Your task to perform on an android device: Open calendar and show me the second week of next month Image 0: 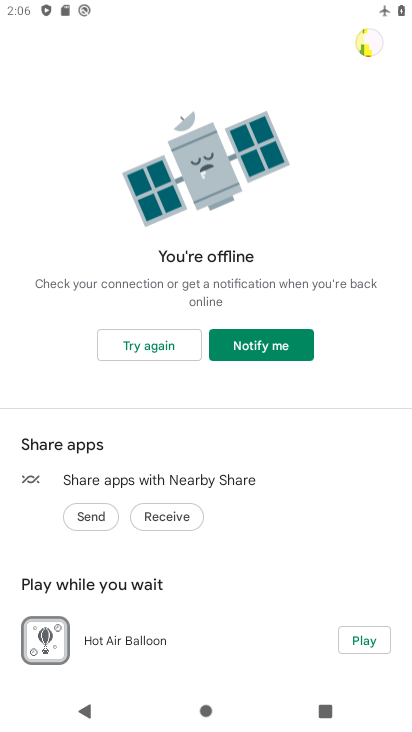
Step 0: press home button
Your task to perform on an android device: Open calendar and show me the second week of next month Image 1: 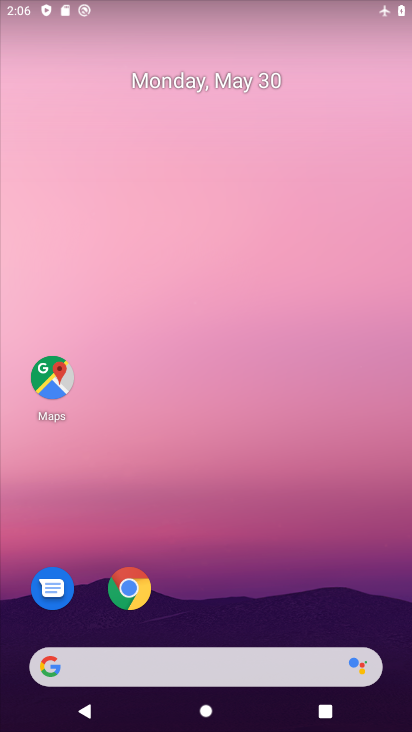
Step 1: drag from (238, 615) to (273, 161)
Your task to perform on an android device: Open calendar and show me the second week of next month Image 2: 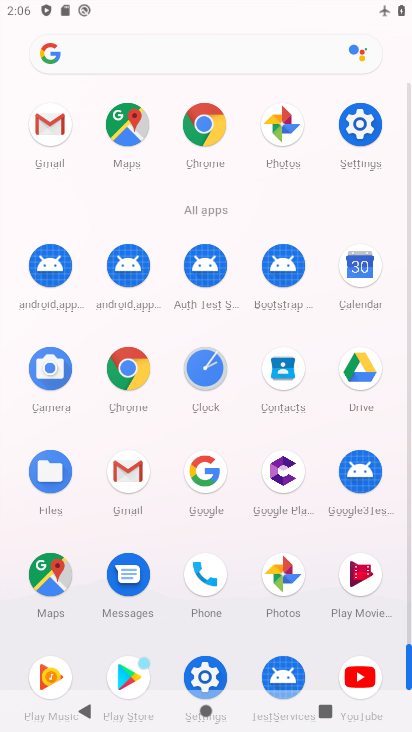
Step 2: click (351, 267)
Your task to perform on an android device: Open calendar and show me the second week of next month Image 3: 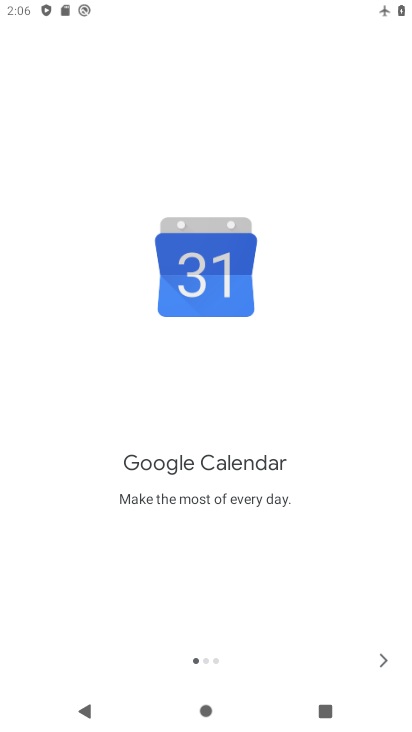
Step 3: click (362, 651)
Your task to perform on an android device: Open calendar and show me the second week of next month Image 4: 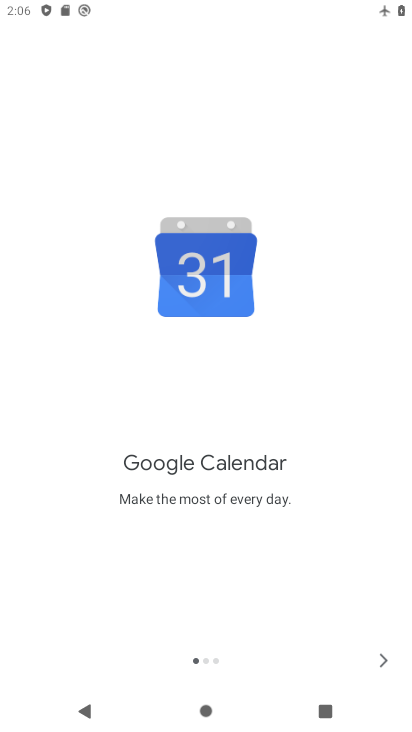
Step 4: click (381, 657)
Your task to perform on an android device: Open calendar and show me the second week of next month Image 5: 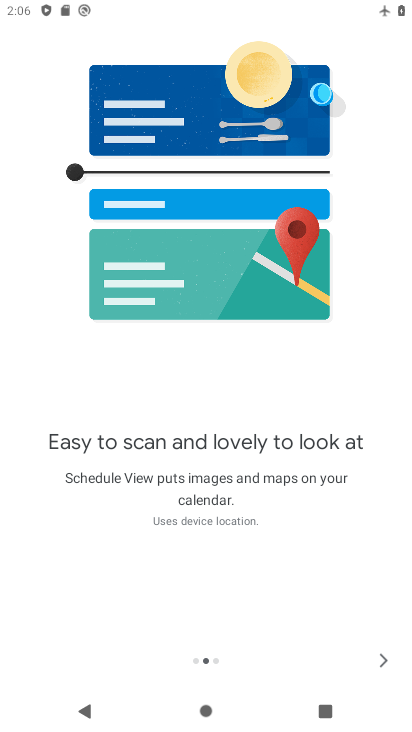
Step 5: click (381, 657)
Your task to perform on an android device: Open calendar and show me the second week of next month Image 6: 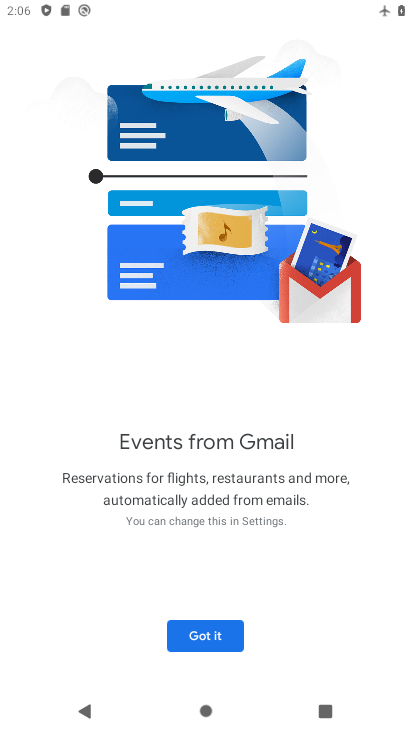
Step 6: click (382, 657)
Your task to perform on an android device: Open calendar and show me the second week of next month Image 7: 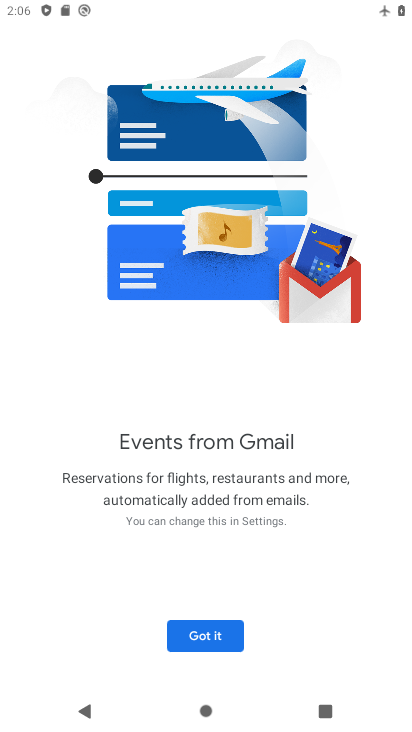
Step 7: click (232, 639)
Your task to perform on an android device: Open calendar and show me the second week of next month Image 8: 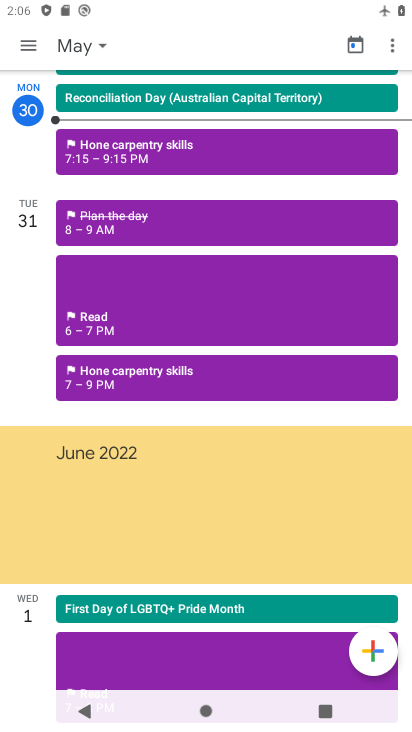
Step 8: click (30, 47)
Your task to perform on an android device: Open calendar and show me the second week of next month Image 9: 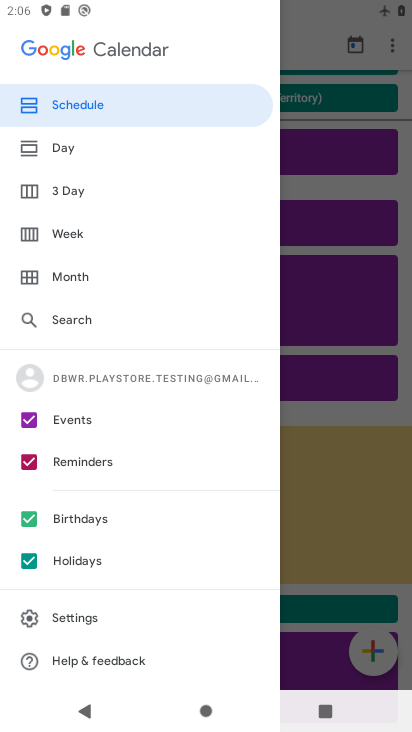
Step 9: click (90, 275)
Your task to perform on an android device: Open calendar and show me the second week of next month Image 10: 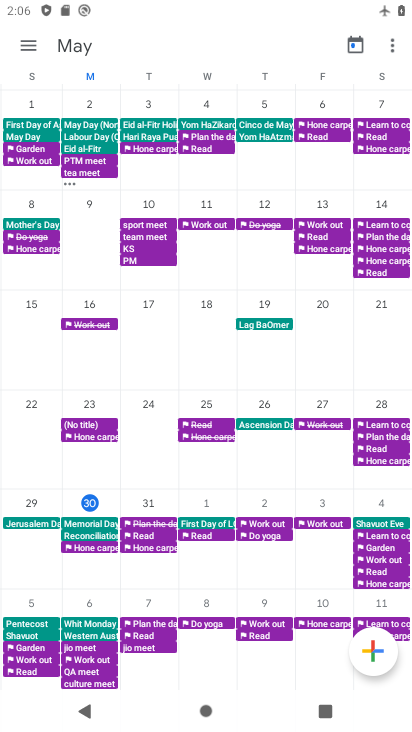
Step 10: task complete